Your task to perform on an android device: Go to Reddit.com Image 0: 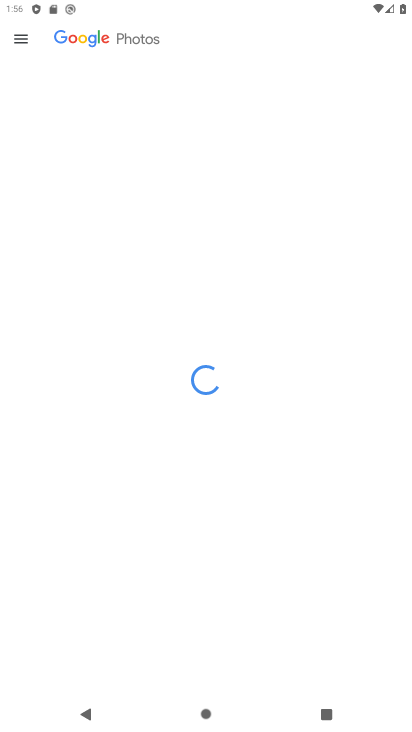
Step 0: press home button
Your task to perform on an android device: Go to Reddit.com Image 1: 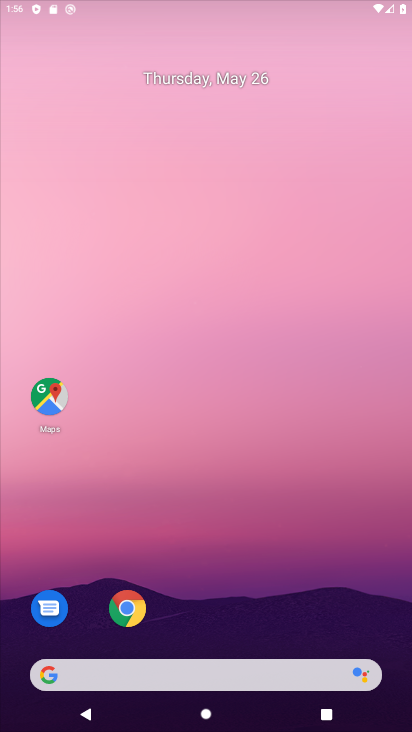
Step 1: drag from (300, 618) to (357, 67)
Your task to perform on an android device: Go to Reddit.com Image 2: 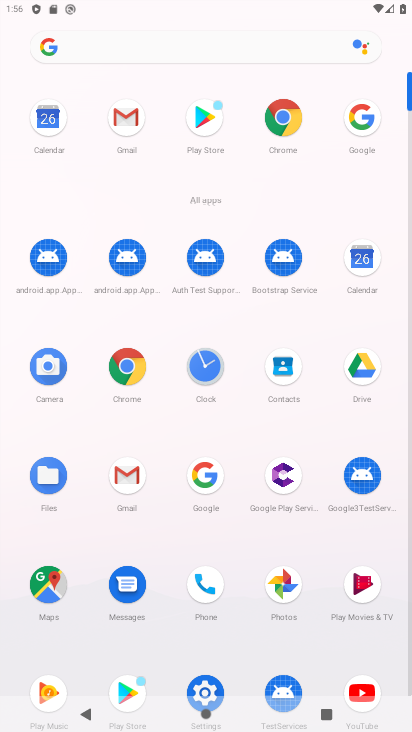
Step 2: click (263, 119)
Your task to perform on an android device: Go to Reddit.com Image 3: 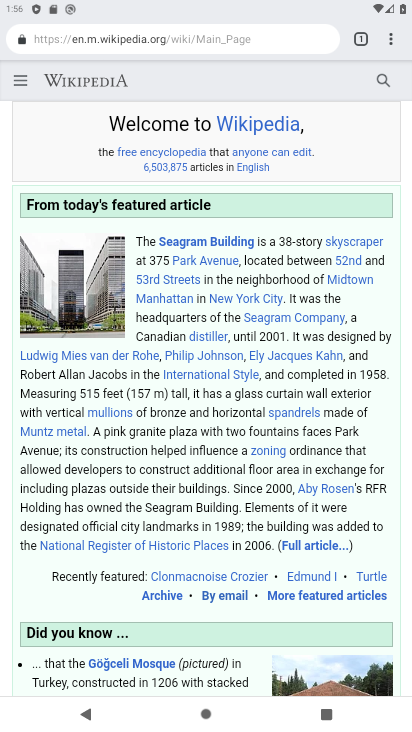
Step 3: click (225, 35)
Your task to perform on an android device: Go to Reddit.com Image 4: 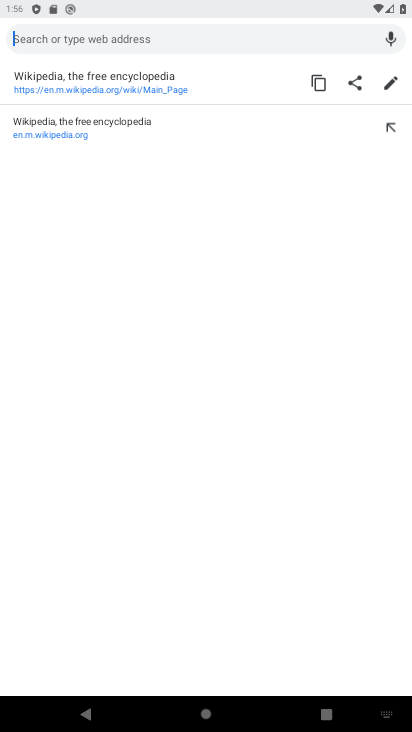
Step 4: type "reddit"
Your task to perform on an android device: Go to Reddit.com Image 5: 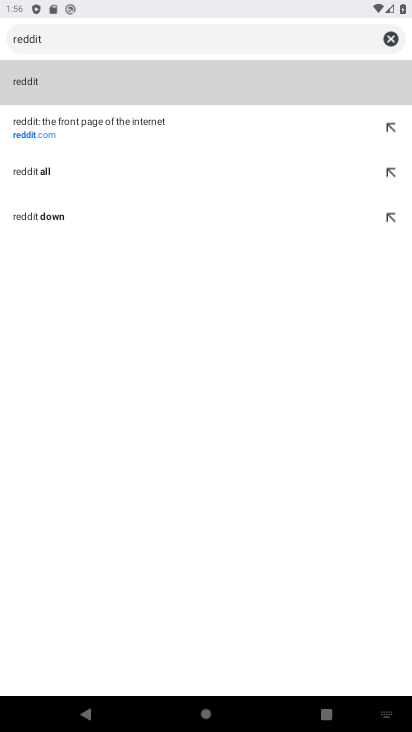
Step 5: click (71, 135)
Your task to perform on an android device: Go to Reddit.com Image 6: 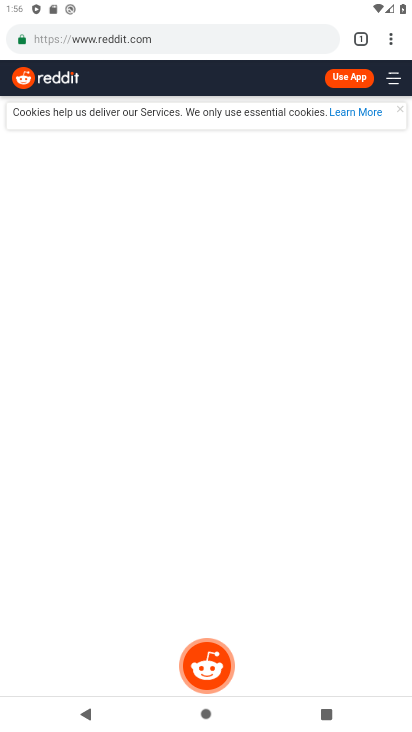
Step 6: task complete